Your task to perform on an android device: Open Amazon Image 0: 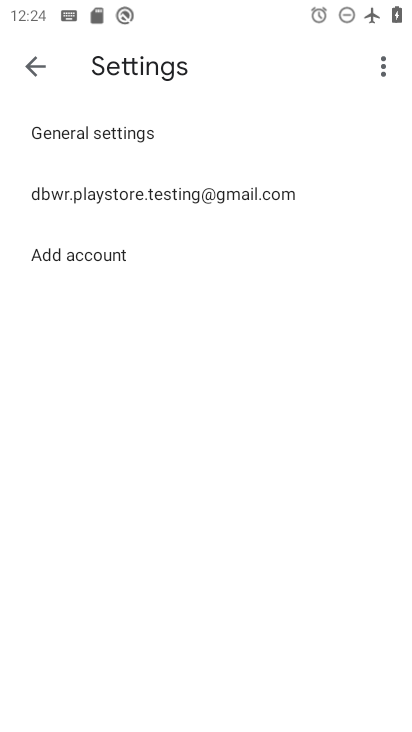
Step 0: press home button
Your task to perform on an android device: Open Amazon Image 1: 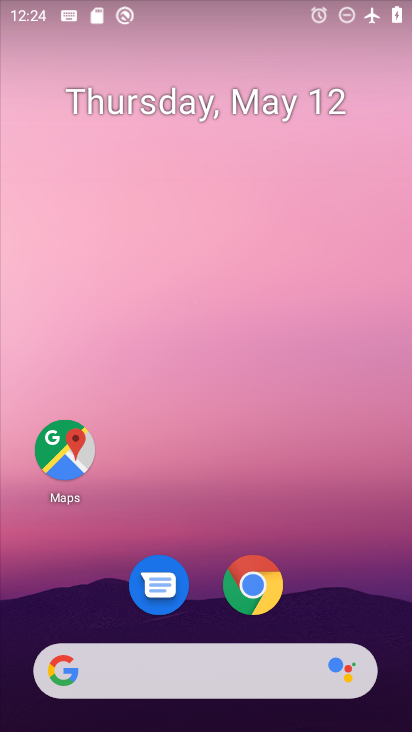
Step 1: click (186, 676)
Your task to perform on an android device: Open Amazon Image 2: 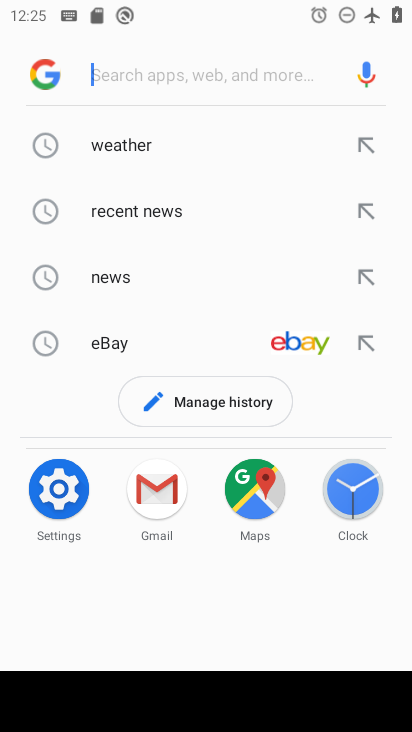
Step 2: type "amazon"
Your task to perform on an android device: Open Amazon Image 3: 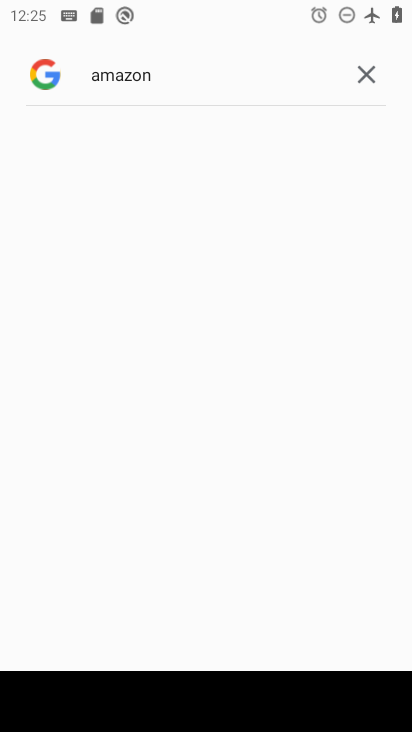
Step 3: task complete